Your task to perform on an android device: Go to Maps Image 0: 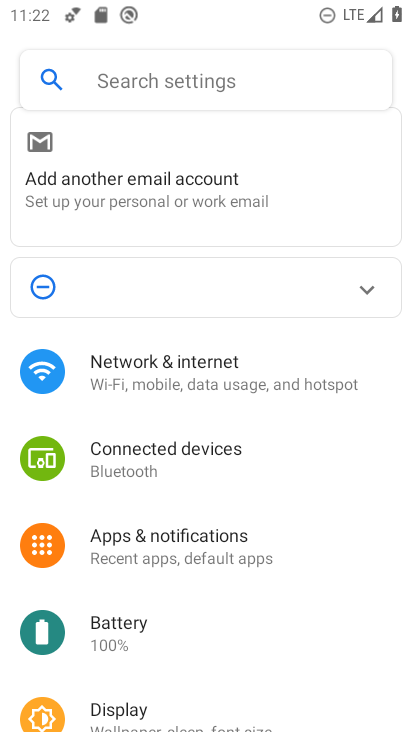
Step 0: press home button
Your task to perform on an android device: Go to Maps Image 1: 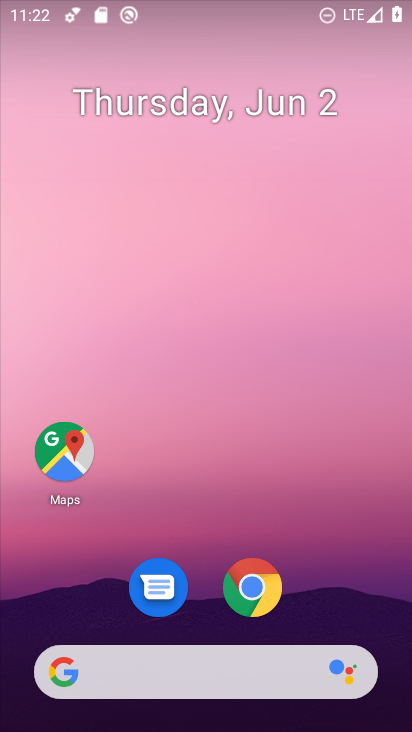
Step 1: click (75, 463)
Your task to perform on an android device: Go to Maps Image 2: 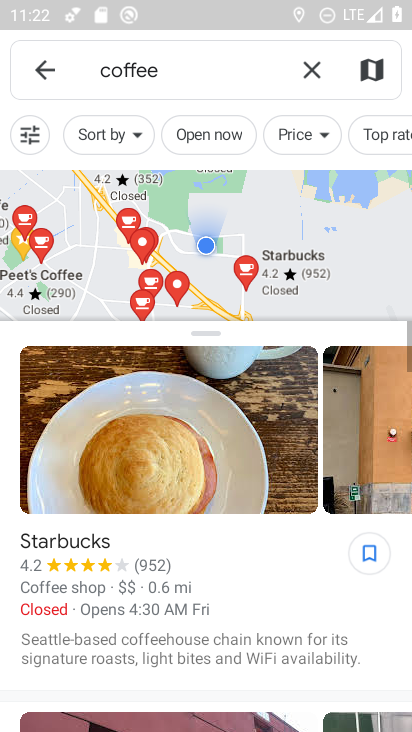
Step 2: task complete